Your task to perform on an android device: When is my next meeting? Image 0: 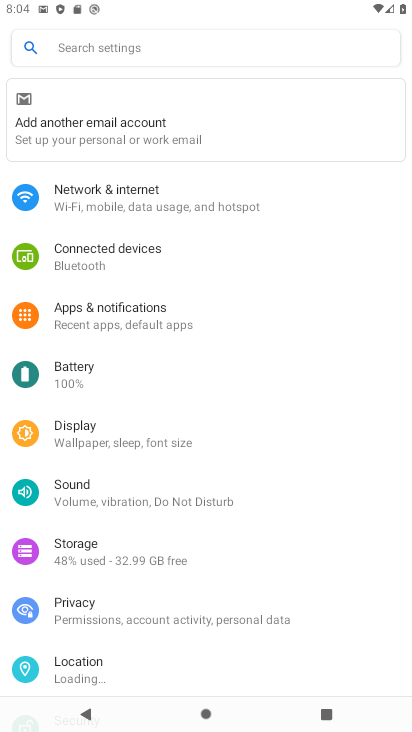
Step 0: press home button
Your task to perform on an android device: When is my next meeting? Image 1: 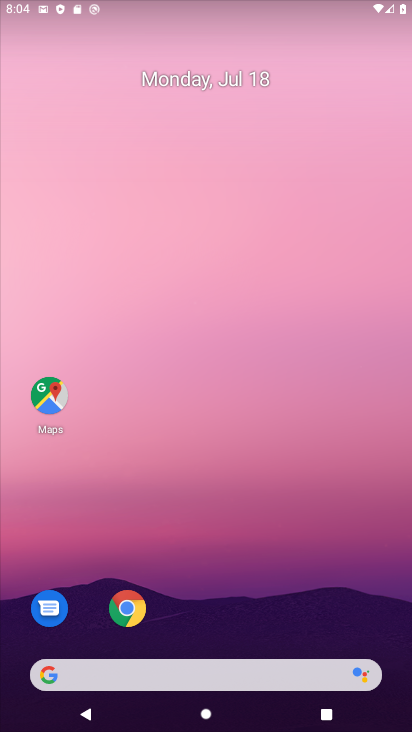
Step 1: drag from (336, 596) to (271, 98)
Your task to perform on an android device: When is my next meeting? Image 2: 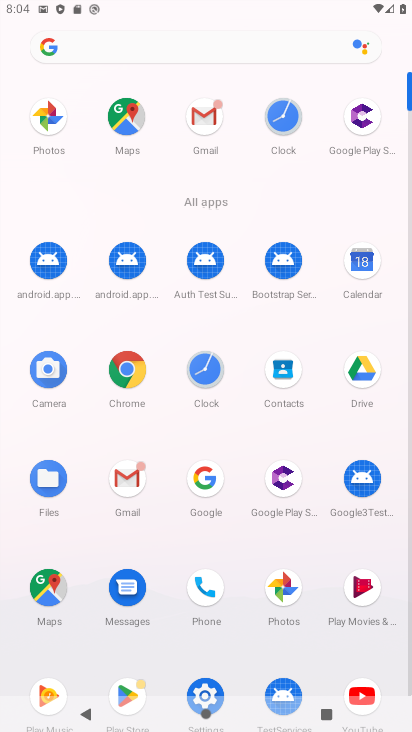
Step 2: click (350, 260)
Your task to perform on an android device: When is my next meeting? Image 3: 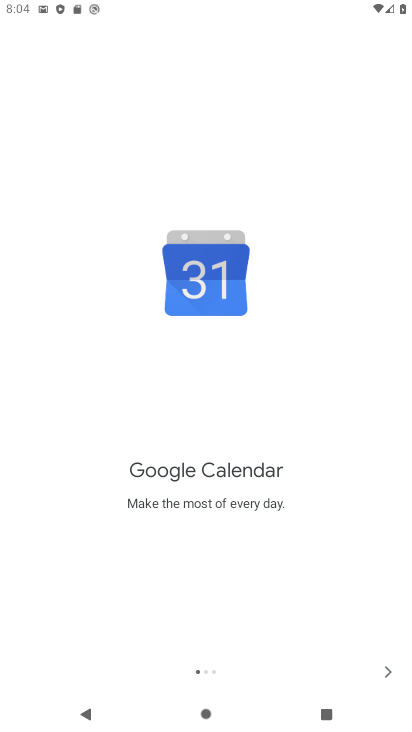
Step 3: click (385, 675)
Your task to perform on an android device: When is my next meeting? Image 4: 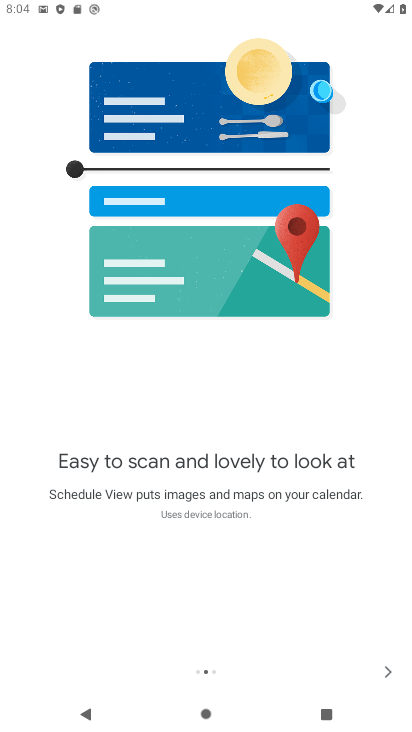
Step 4: click (385, 675)
Your task to perform on an android device: When is my next meeting? Image 5: 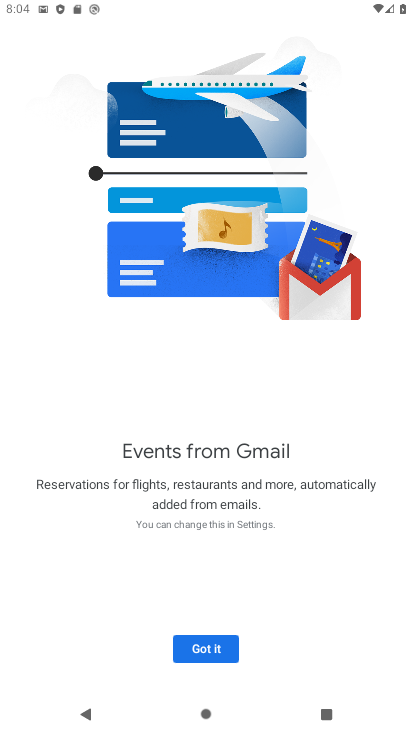
Step 5: click (182, 650)
Your task to perform on an android device: When is my next meeting? Image 6: 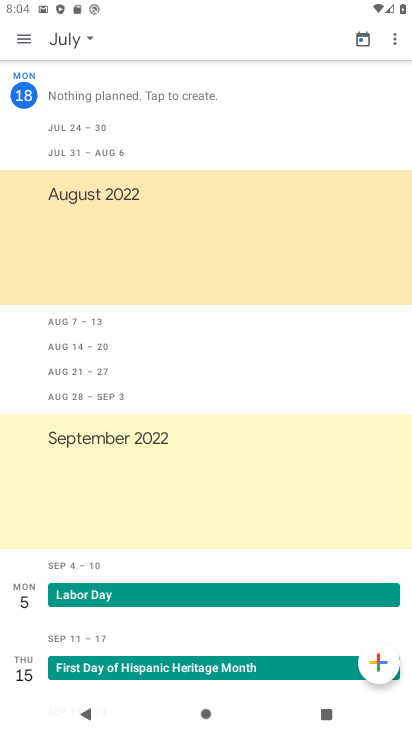
Step 6: click (89, 42)
Your task to perform on an android device: When is my next meeting? Image 7: 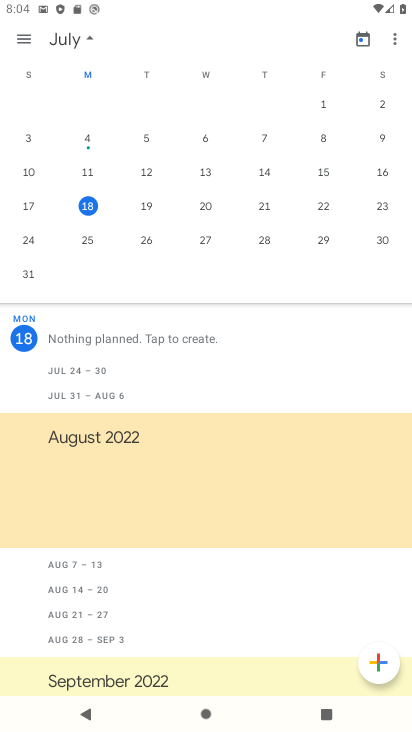
Step 7: click (93, 200)
Your task to perform on an android device: When is my next meeting? Image 8: 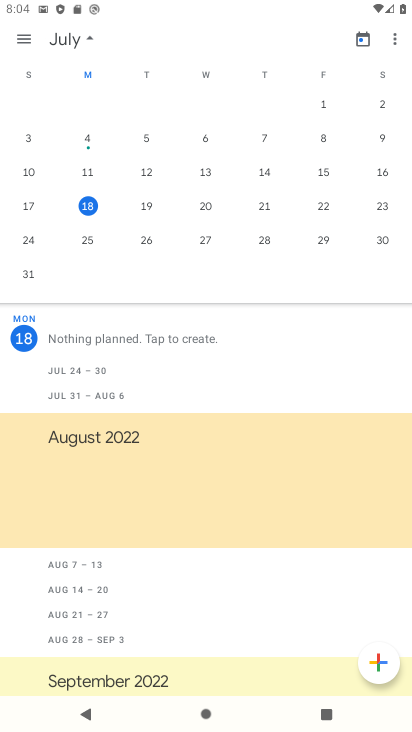
Step 8: task complete